Your task to perform on an android device: toggle location history Image 0: 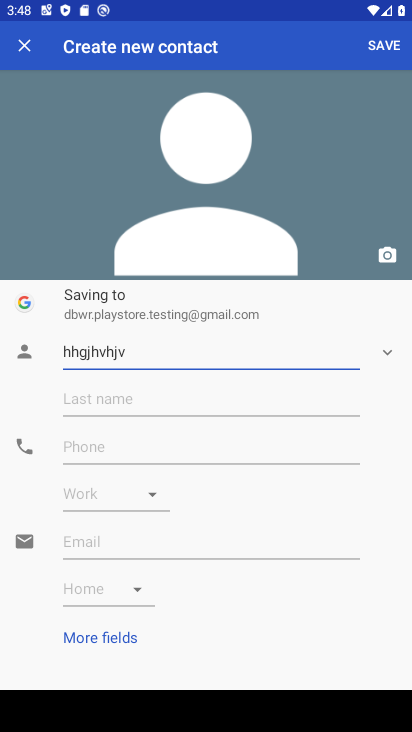
Step 0: press home button
Your task to perform on an android device: toggle location history Image 1: 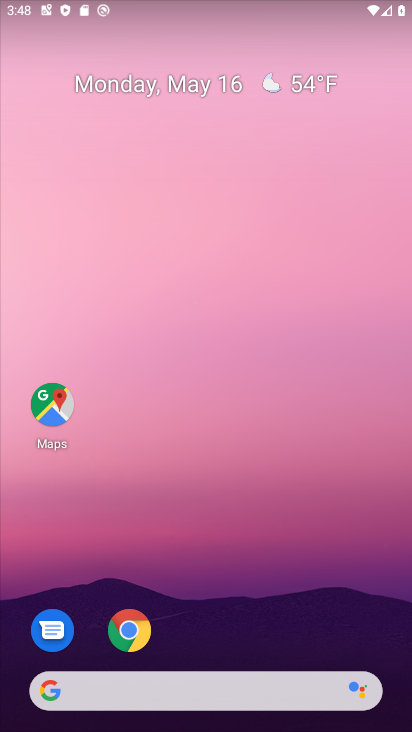
Step 1: drag from (252, 667) to (198, 245)
Your task to perform on an android device: toggle location history Image 2: 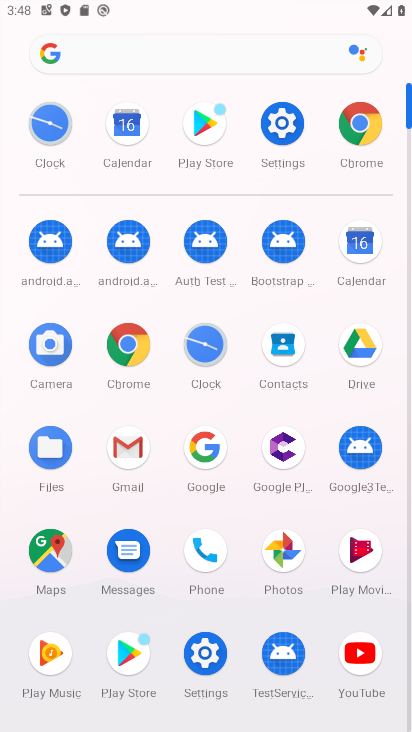
Step 2: click (51, 553)
Your task to perform on an android device: toggle location history Image 3: 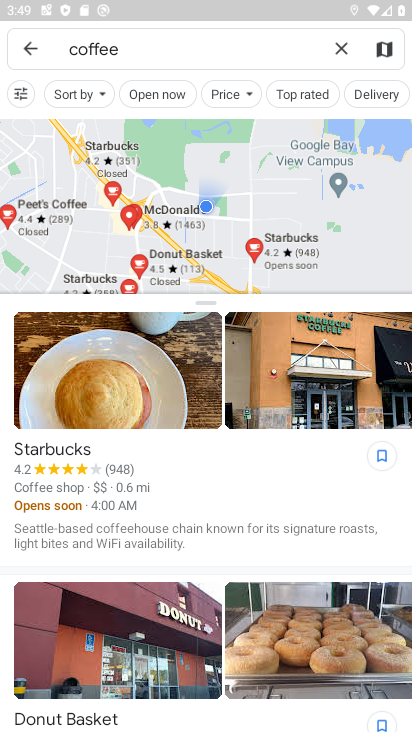
Step 3: click (32, 47)
Your task to perform on an android device: toggle location history Image 4: 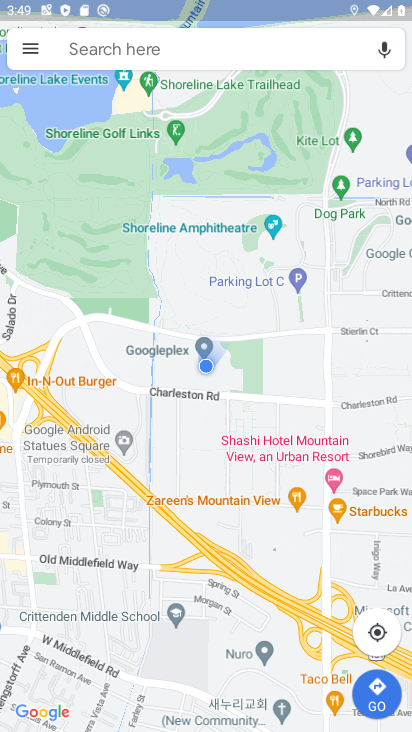
Step 4: click (33, 46)
Your task to perform on an android device: toggle location history Image 5: 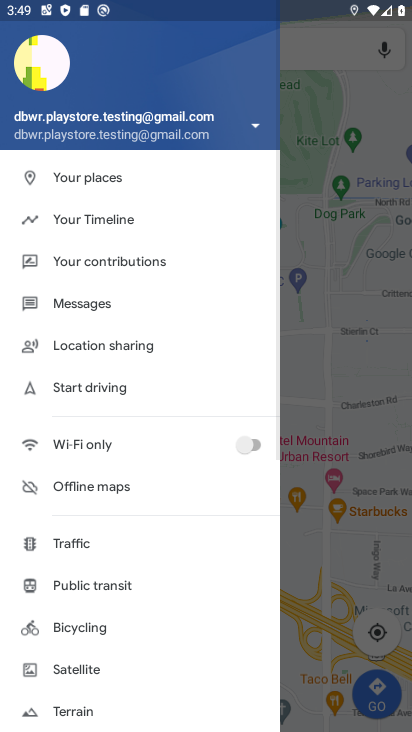
Step 5: click (132, 215)
Your task to perform on an android device: toggle location history Image 6: 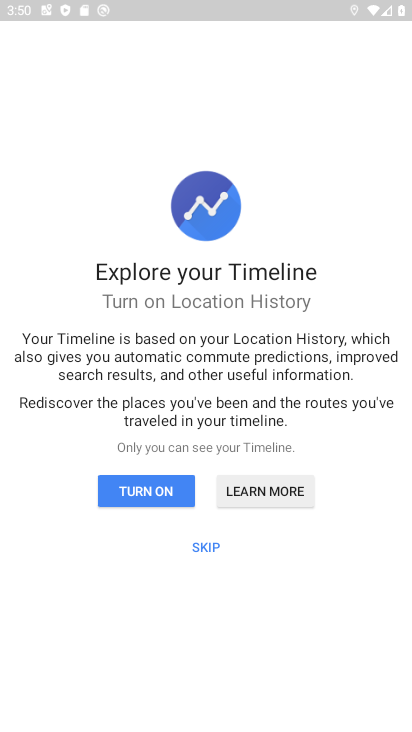
Step 6: click (218, 540)
Your task to perform on an android device: toggle location history Image 7: 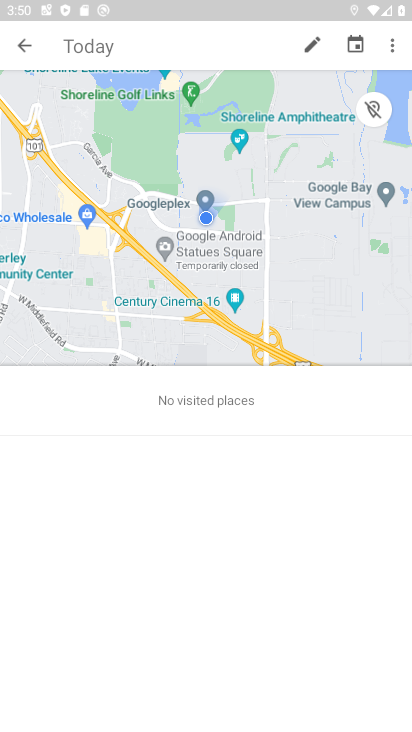
Step 7: click (397, 40)
Your task to perform on an android device: toggle location history Image 8: 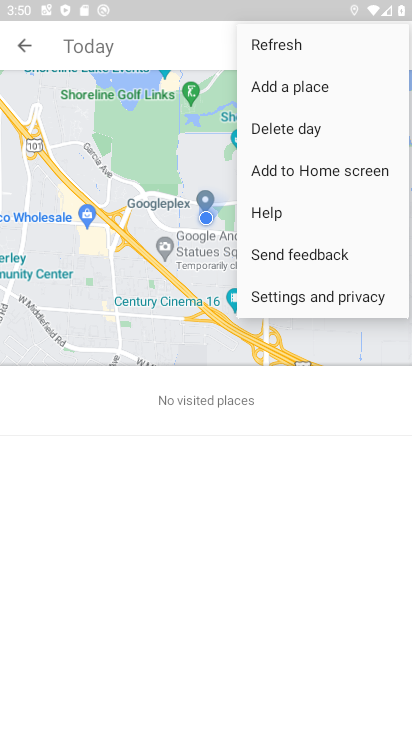
Step 8: click (364, 303)
Your task to perform on an android device: toggle location history Image 9: 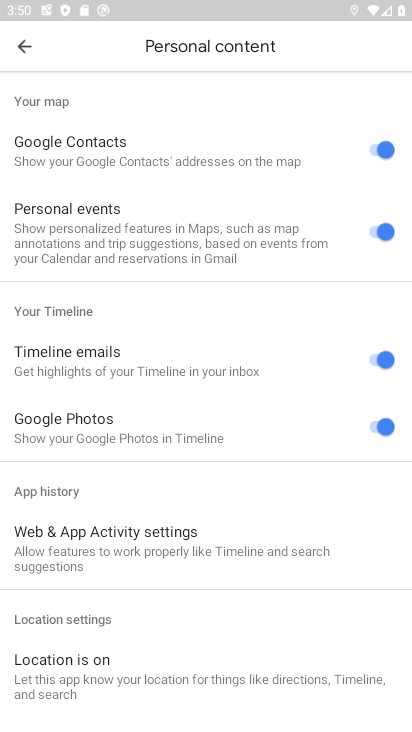
Step 9: drag from (171, 672) to (164, 286)
Your task to perform on an android device: toggle location history Image 10: 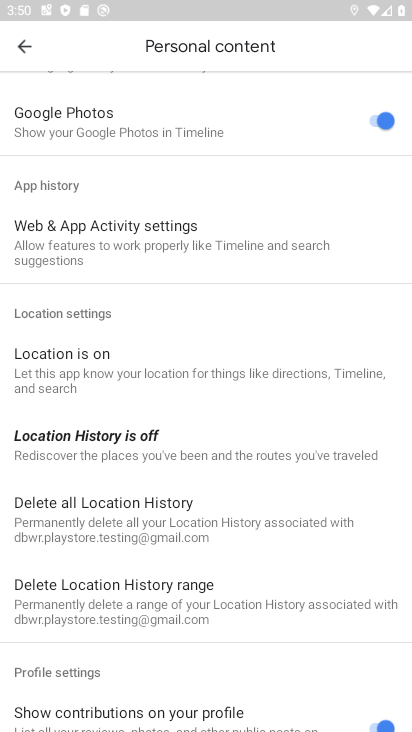
Step 10: click (184, 455)
Your task to perform on an android device: toggle location history Image 11: 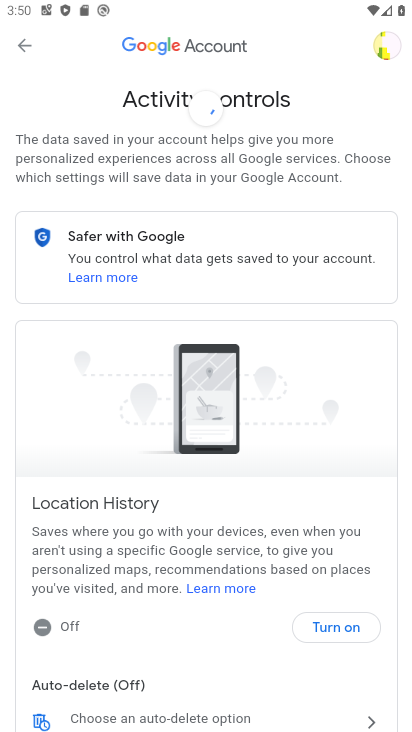
Step 11: click (312, 624)
Your task to perform on an android device: toggle location history Image 12: 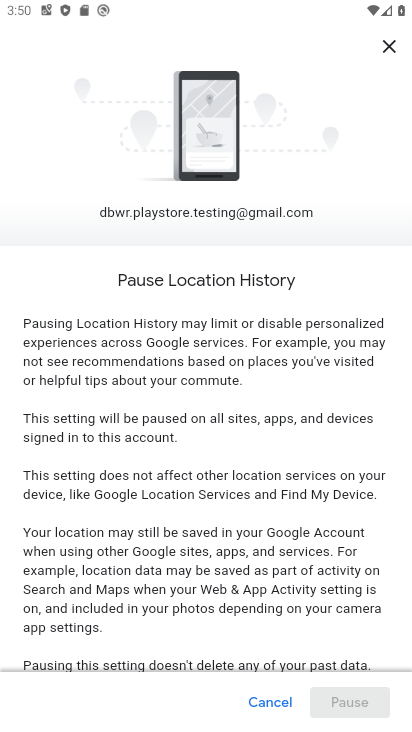
Step 12: drag from (335, 634) to (308, 70)
Your task to perform on an android device: toggle location history Image 13: 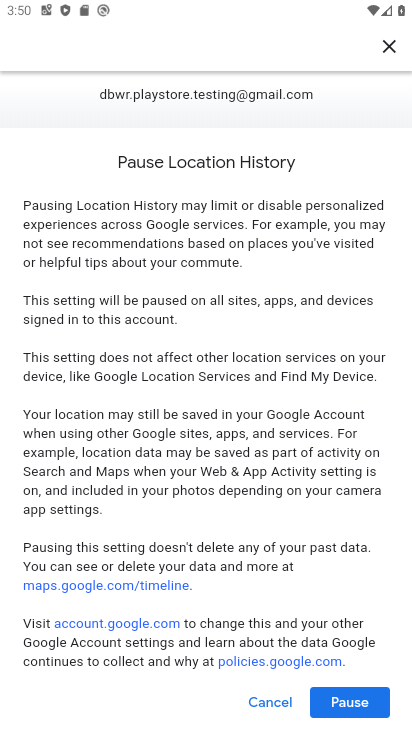
Step 13: drag from (296, 570) to (319, 92)
Your task to perform on an android device: toggle location history Image 14: 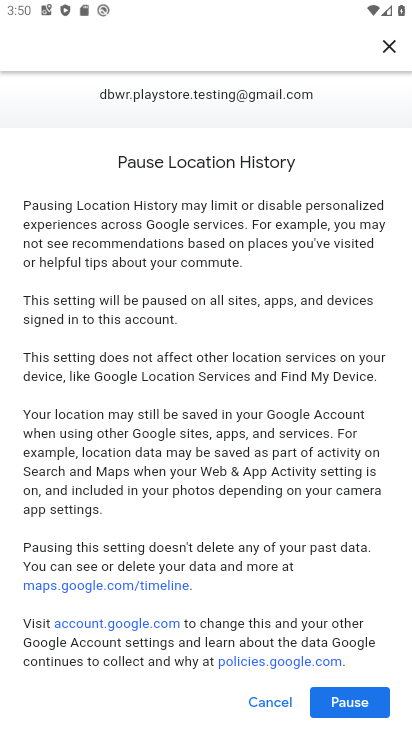
Step 14: click (370, 696)
Your task to perform on an android device: toggle location history Image 15: 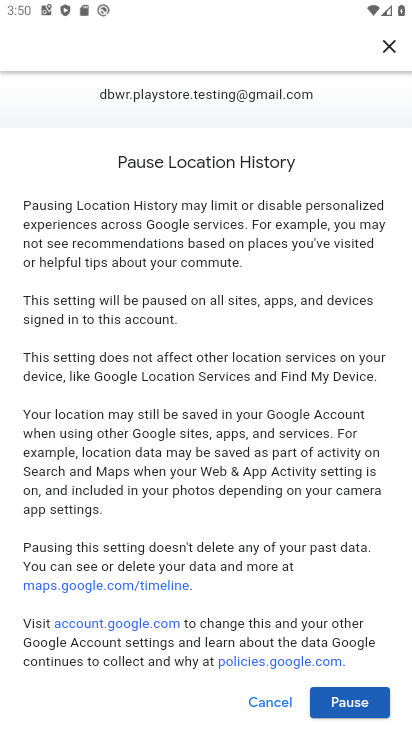
Step 15: click (370, 696)
Your task to perform on an android device: toggle location history Image 16: 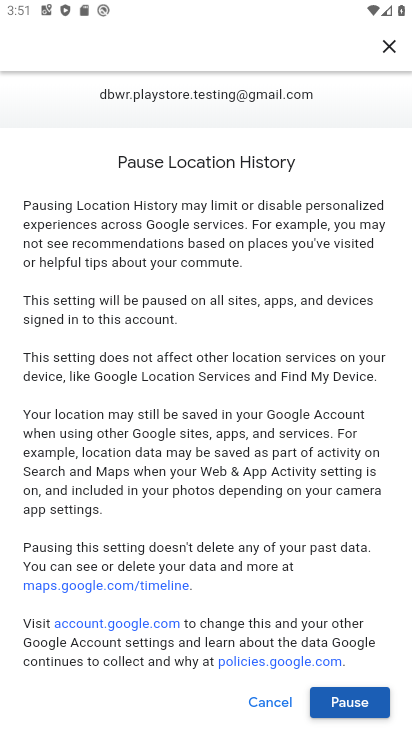
Step 16: click (361, 714)
Your task to perform on an android device: toggle location history Image 17: 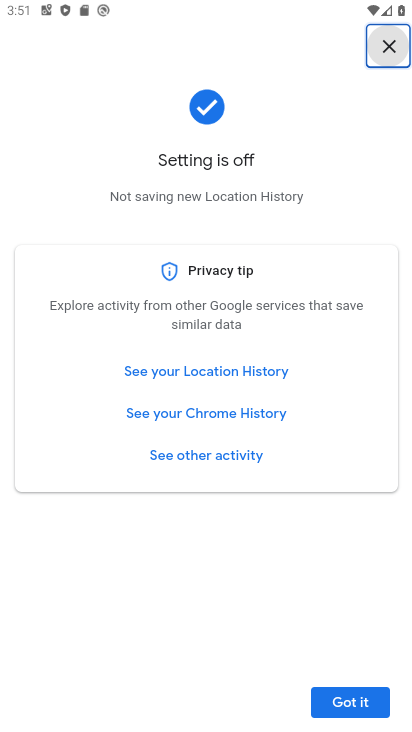
Step 17: click (361, 714)
Your task to perform on an android device: toggle location history Image 18: 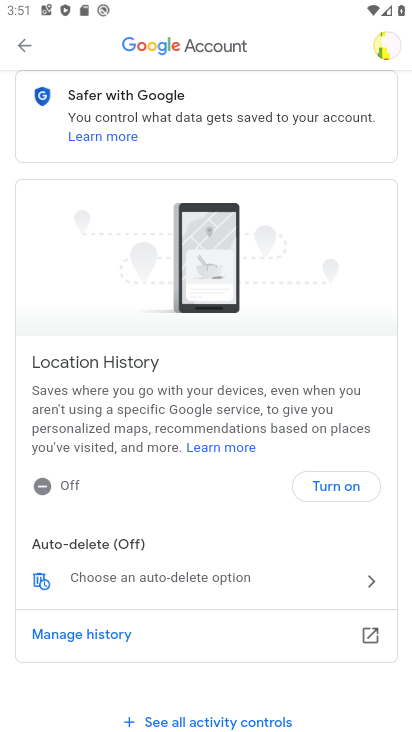
Step 18: task complete